Your task to perform on an android device: Go to privacy settings Image 0: 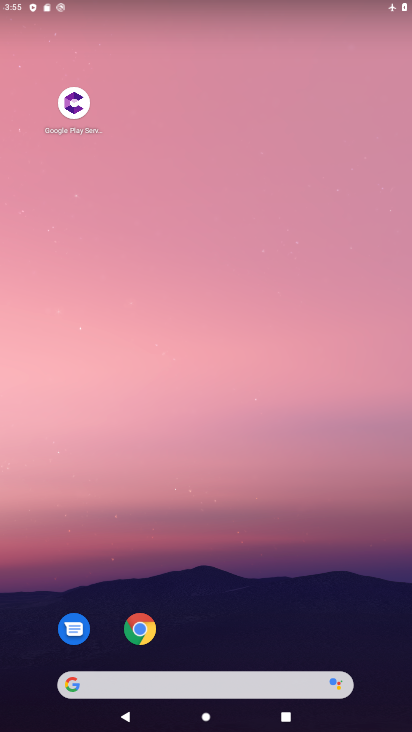
Step 0: drag from (230, 649) to (255, 100)
Your task to perform on an android device: Go to privacy settings Image 1: 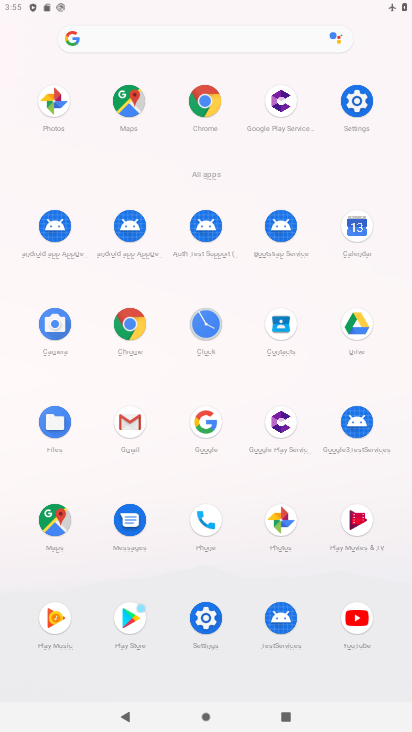
Step 1: click (128, 334)
Your task to perform on an android device: Go to privacy settings Image 2: 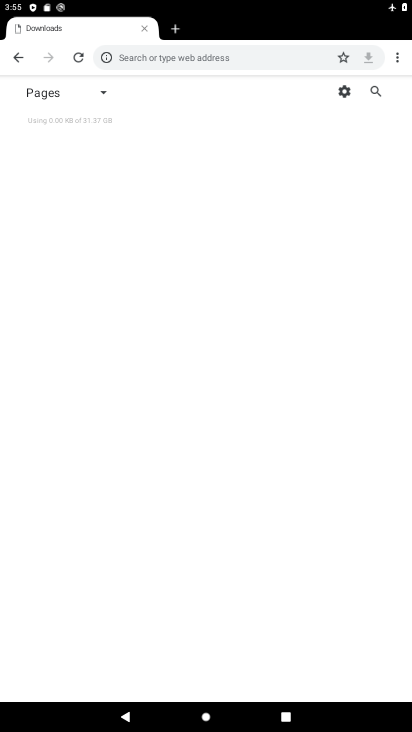
Step 2: drag from (394, 54) to (326, 261)
Your task to perform on an android device: Go to privacy settings Image 3: 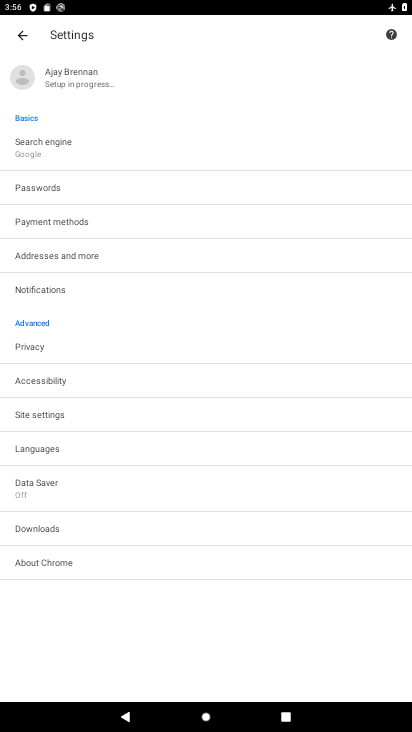
Step 3: click (105, 351)
Your task to perform on an android device: Go to privacy settings Image 4: 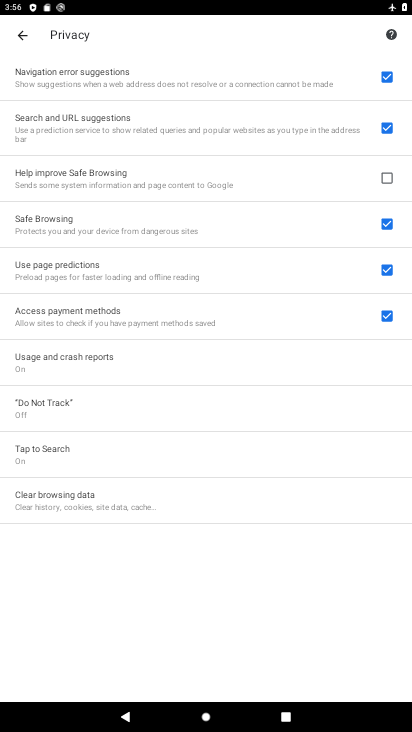
Step 4: task complete